Your task to perform on an android device: turn off priority inbox in the gmail app Image 0: 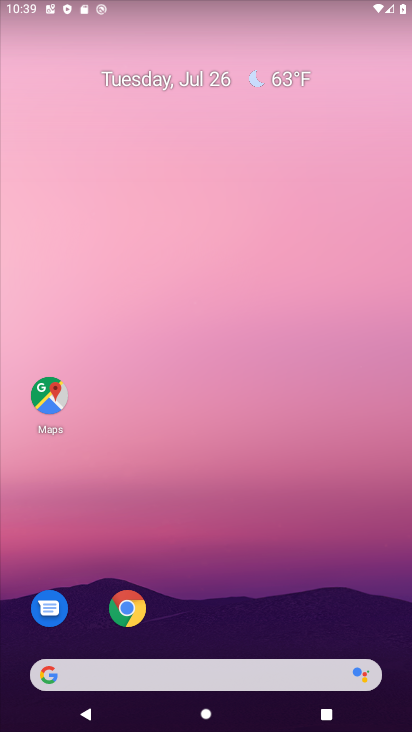
Step 0: press home button
Your task to perform on an android device: turn off priority inbox in the gmail app Image 1: 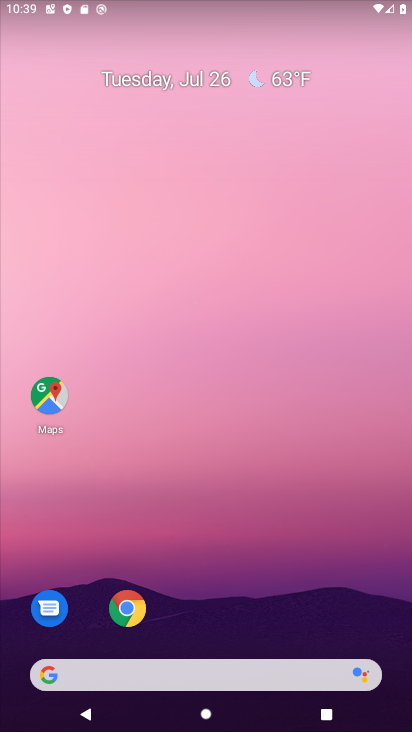
Step 1: drag from (247, 636) to (231, 186)
Your task to perform on an android device: turn off priority inbox in the gmail app Image 2: 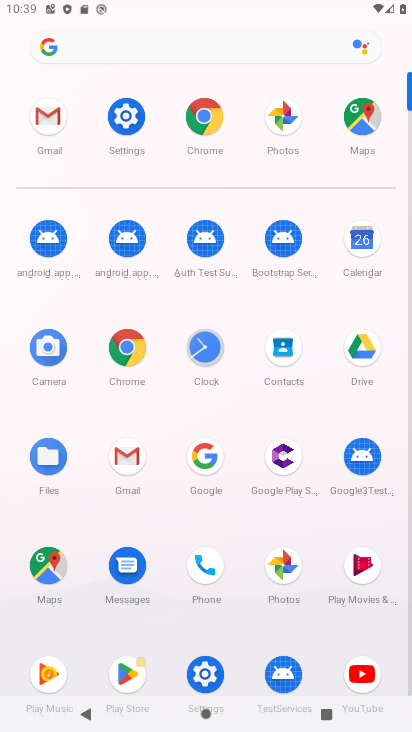
Step 2: click (45, 122)
Your task to perform on an android device: turn off priority inbox in the gmail app Image 3: 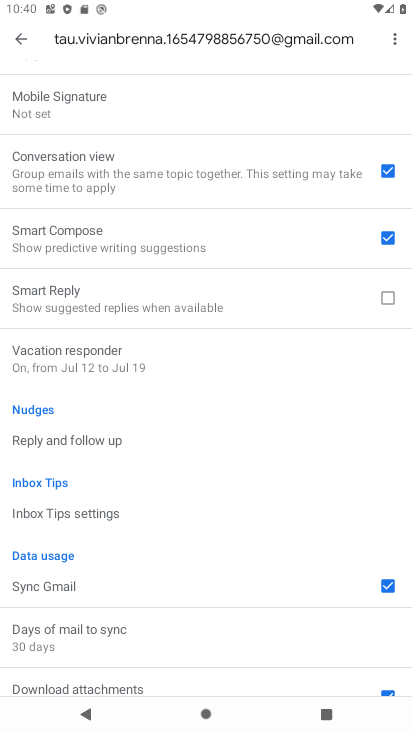
Step 3: drag from (327, 325) to (332, 728)
Your task to perform on an android device: turn off priority inbox in the gmail app Image 4: 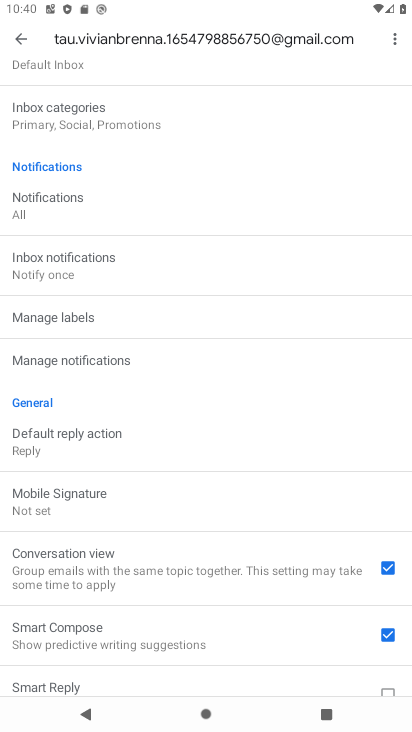
Step 4: drag from (268, 142) to (312, 560)
Your task to perform on an android device: turn off priority inbox in the gmail app Image 5: 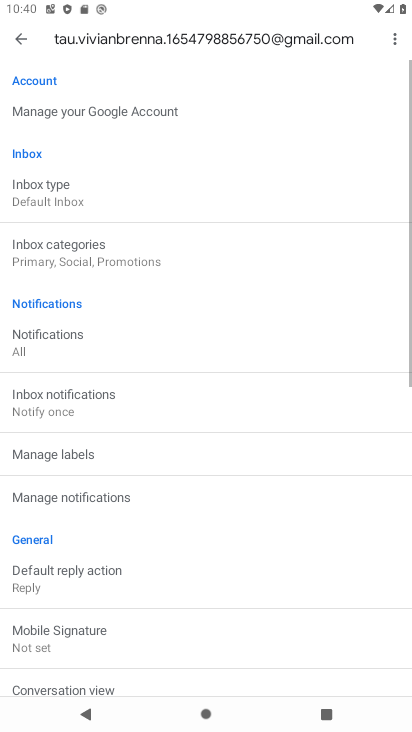
Step 5: click (36, 192)
Your task to perform on an android device: turn off priority inbox in the gmail app Image 6: 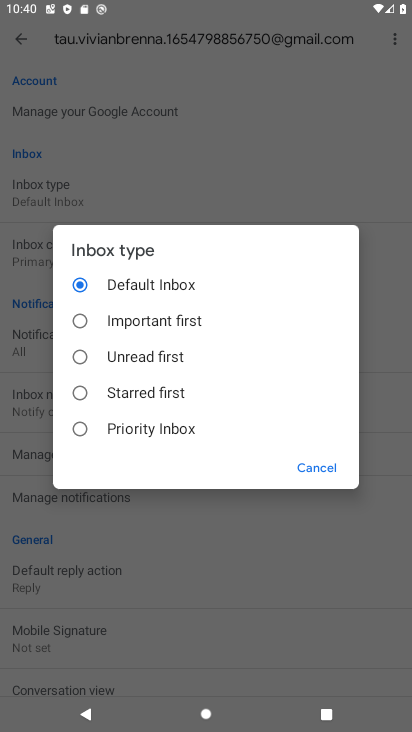
Step 6: task complete